Your task to perform on an android device: Open Google Chrome and open the bookmarks view Image 0: 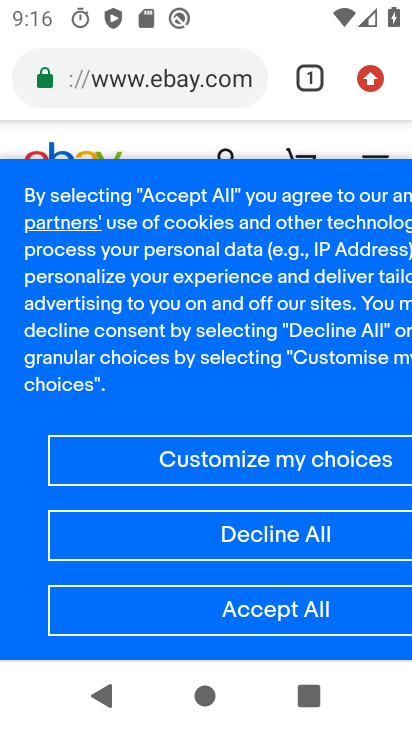
Step 0: click (363, 88)
Your task to perform on an android device: Open Google Chrome and open the bookmarks view Image 1: 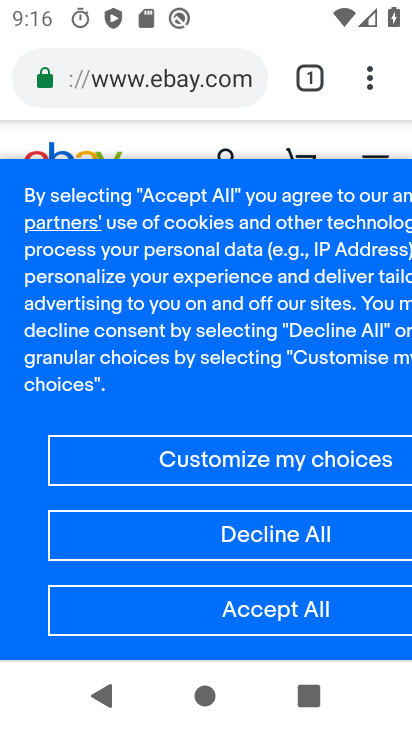
Step 1: click (358, 76)
Your task to perform on an android device: Open Google Chrome and open the bookmarks view Image 2: 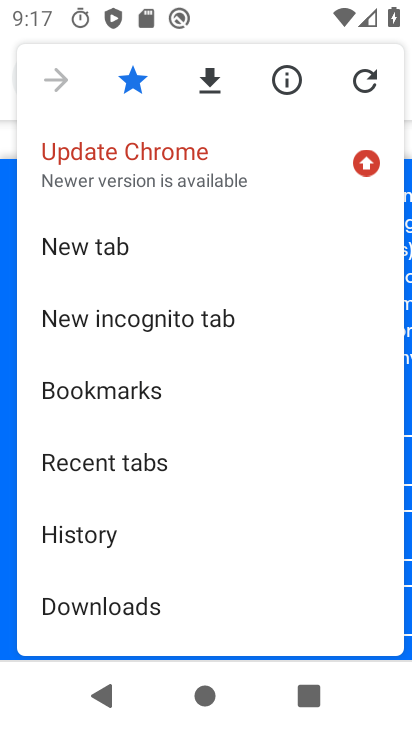
Step 2: click (149, 393)
Your task to perform on an android device: Open Google Chrome and open the bookmarks view Image 3: 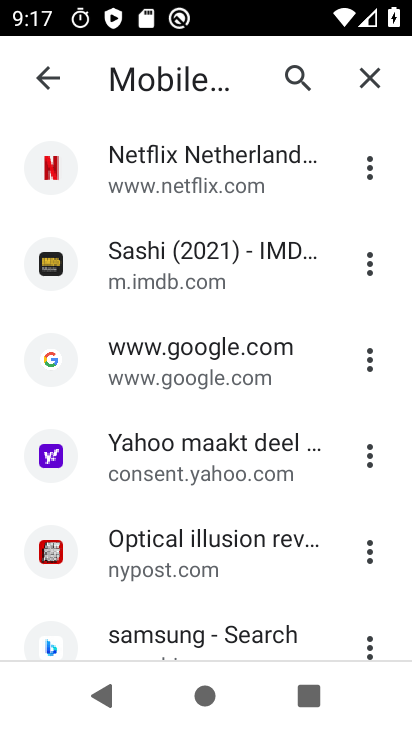
Step 3: task complete